Your task to perform on an android device: turn pop-ups on in chrome Image 0: 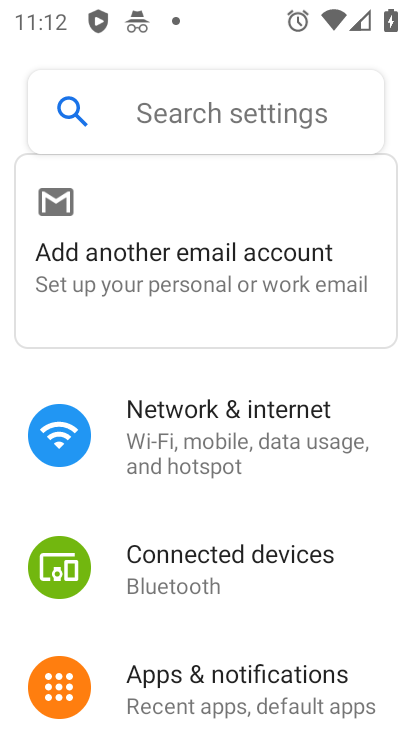
Step 0: press home button
Your task to perform on an android device: turn pop-ups on in chrome Image 1: 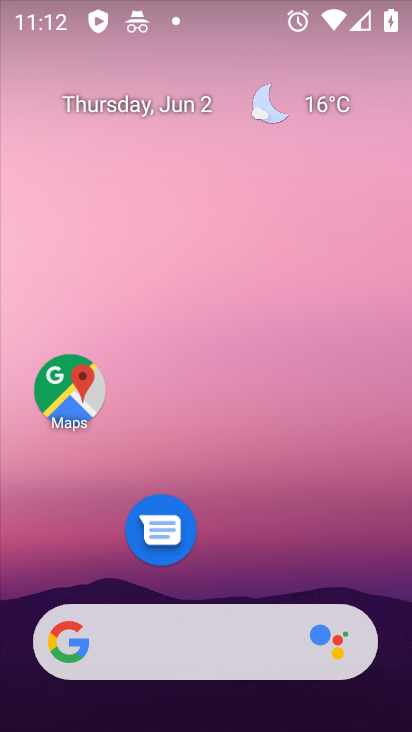
Step 1: drag from (251, 668) to (172, 118)
Your task to perform on an android device: turn pop-ups on in chrome Image 2: 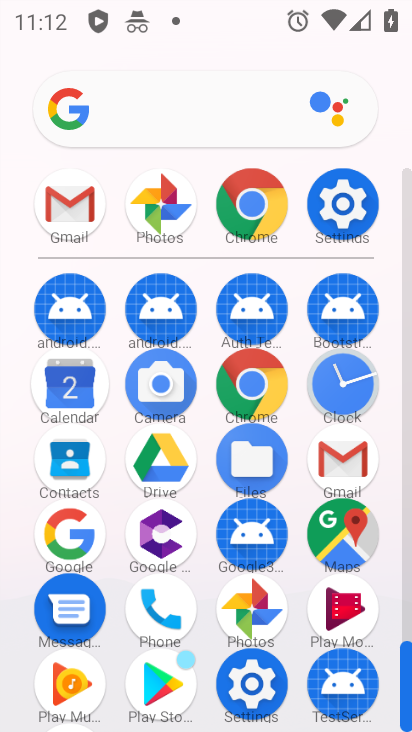
Step 2: click (236, 206)
Your task to perform on an android device: turn pop-ups on in chrome Image 3: 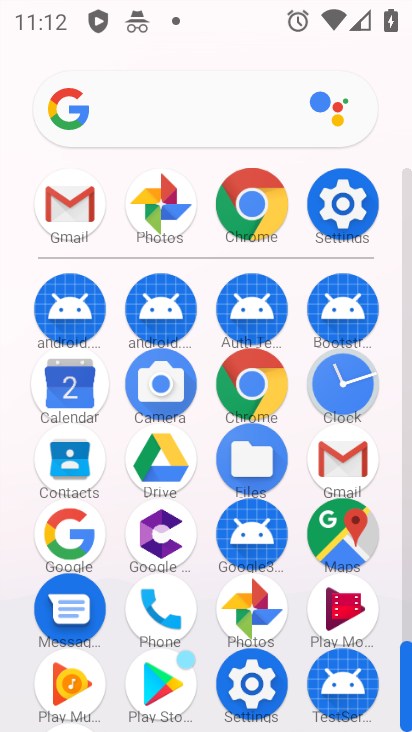
Step 3: click (236, 206)
Your task to perform on an android device: turn pop-ups on in chrome Image 4: 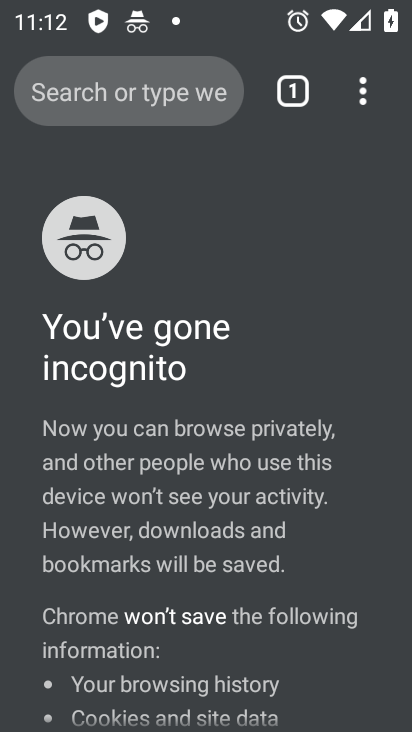
Step 4: click (370, 112)
Your task to perform on an android device: turn pop-ups on in chrome Image 5: 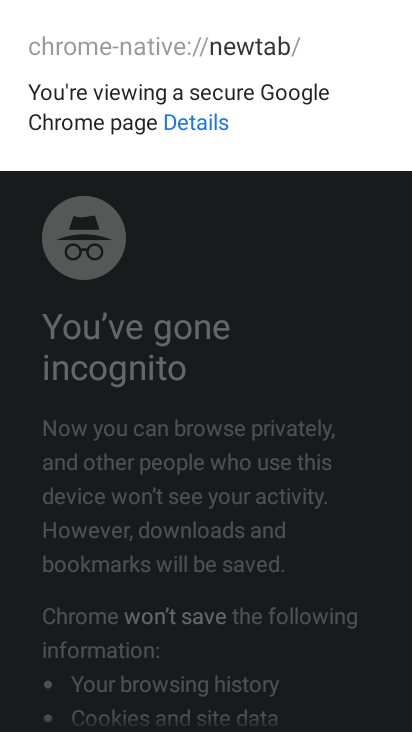
Step 5: click (281, 281)
Your task to perform on an android device: turn pop-ups on in chrome Image 6: 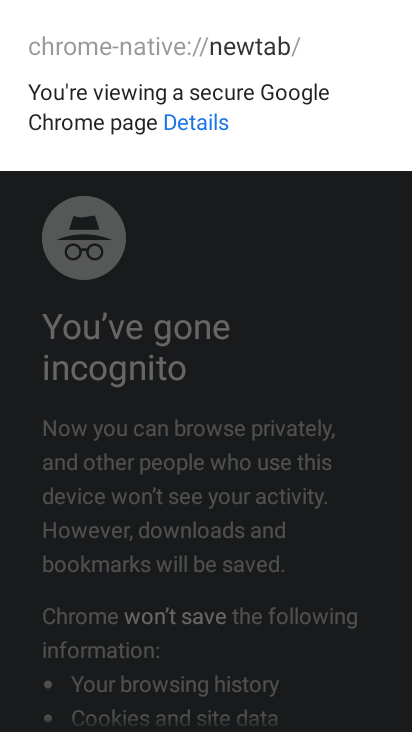
Step 6: click (281, 281)
Your task to perform on an android device: turn pop-ups on in chrome Image 7: 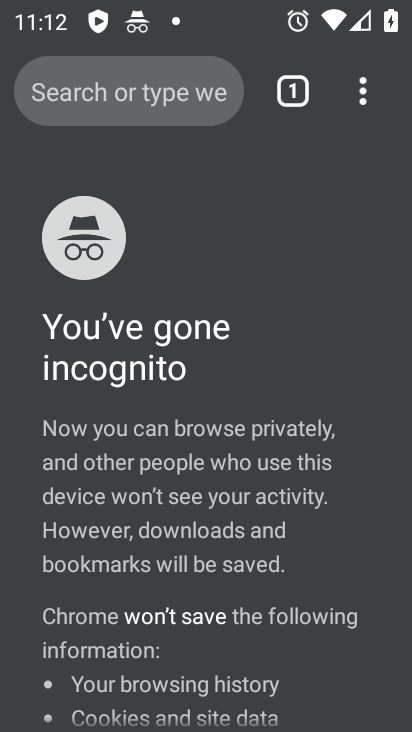
Step 7: drag from (362, 99) to (73, 548)
Your task to perform on an android device: turn pop-ups on in chrome Image 8: 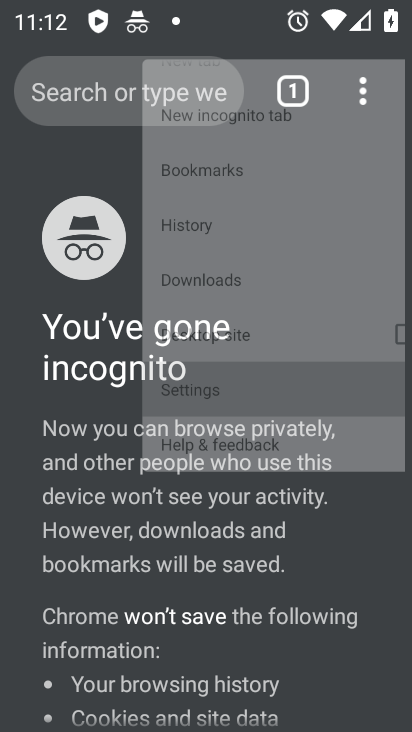
Step 8: click (75, 547)
Your task to perform on an android device: turn pop-ups on in chrome Image 9: 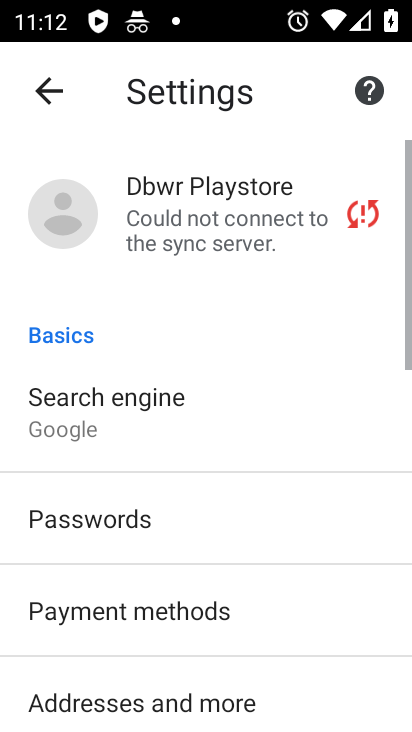
Step 9: drag from (175, 499) to (142, 66)
Your task to perform on an android device: turn pop-ups on in chrome Image 10: 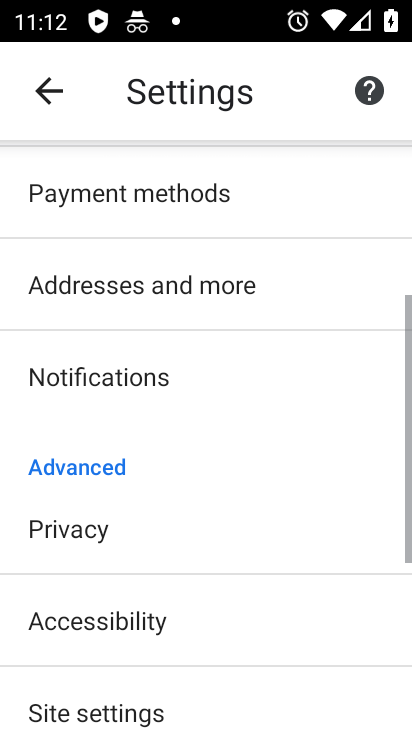
Step 10: drag from (128, 479) to (92, 210)
Your task to perform on an android device: turn pop-ups on in chrome Image 11: 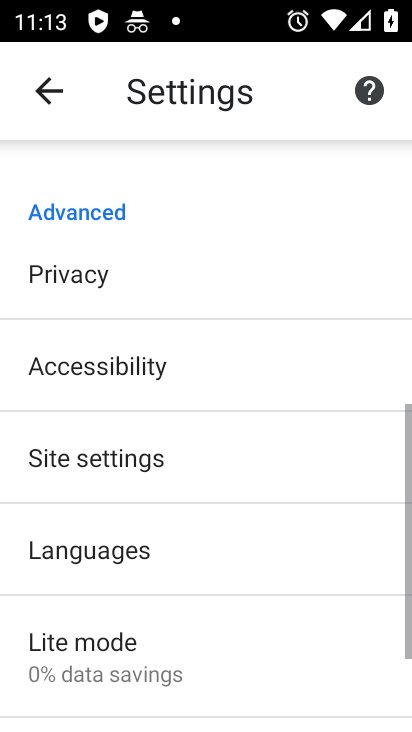
Step 11: drag from (110, 500) to (122, 210)
Your task to perform on an android device: turn pop-ups on in chrome Image 12: 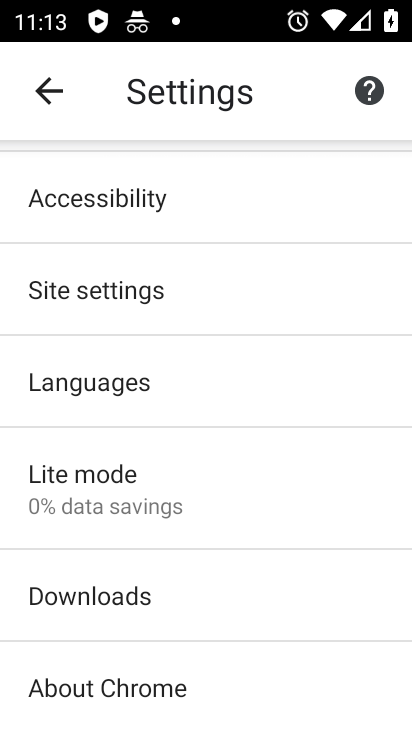
Step 12: click (68, 294)
Your task to perform on an android device: turn pop-ups on in chrome Image 13: 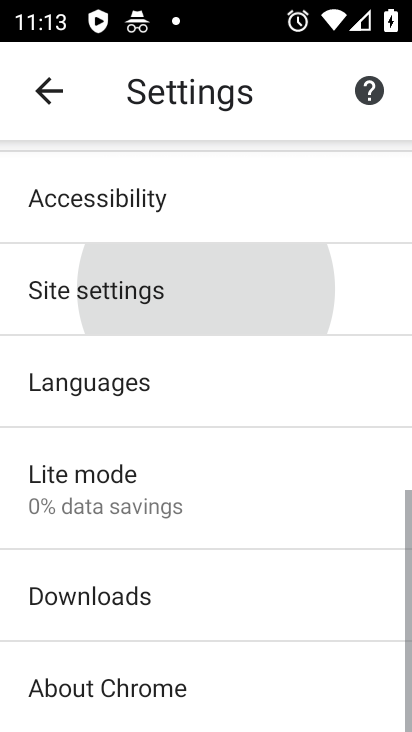
Step 13: click (73, 289)
Your task to perform on an android device: turn pop-ups on in chrome Image 14: 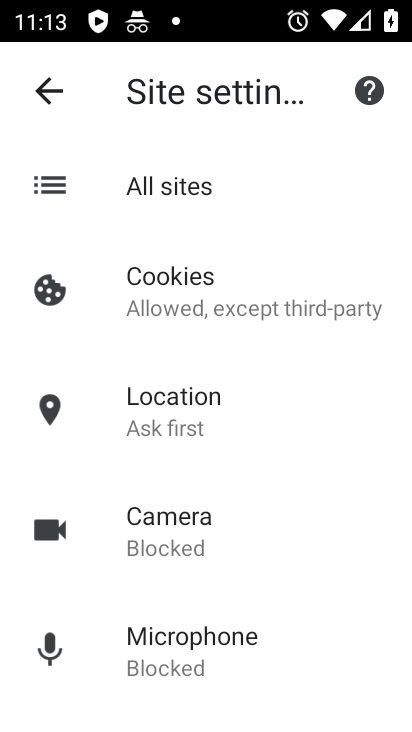
Step 14: drag from (190, 548) to (185, 145)
Your task to perform on an android device: turn pop-ups on in chrome Image 15: 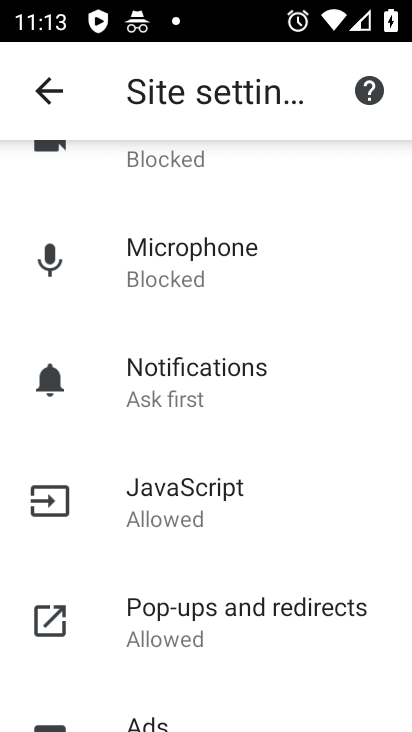
Step 15: click (192, 617)
Your task to perform on an android device: turn pop-ups on in chrome Image 16: 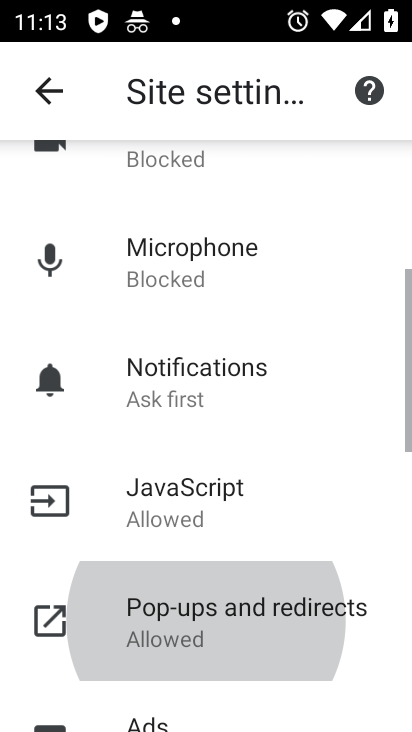
Step 16: click (192, 617)
Your task to perform on an android device: turn pop-ups on in chrome Image 17: 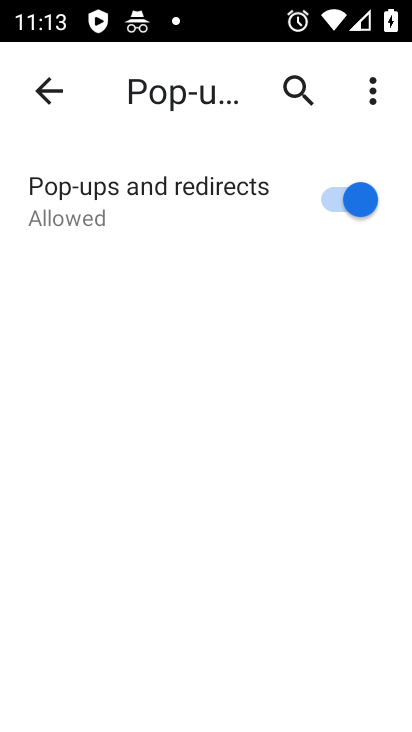
Step 17: task complete